Your task to perform on an android device: Set the phone to "Do not disturb". Image 0: 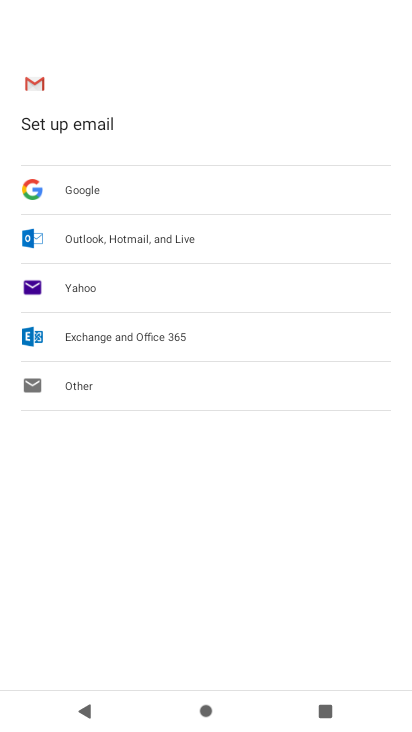
Step 0: press home button
Your task to perform on an android device: Set the phone to "Do not disturb". Image 1: 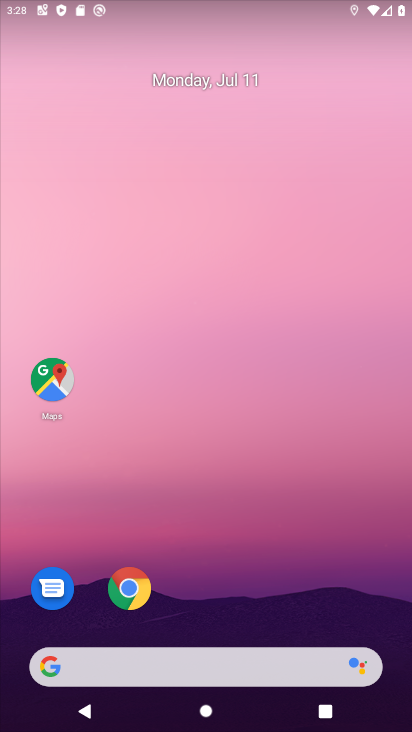
Step 1: drag from (169, 639) to (243, 172)
Your task to perform on an android device: Set the phone to "Do not disturb". Image 2: 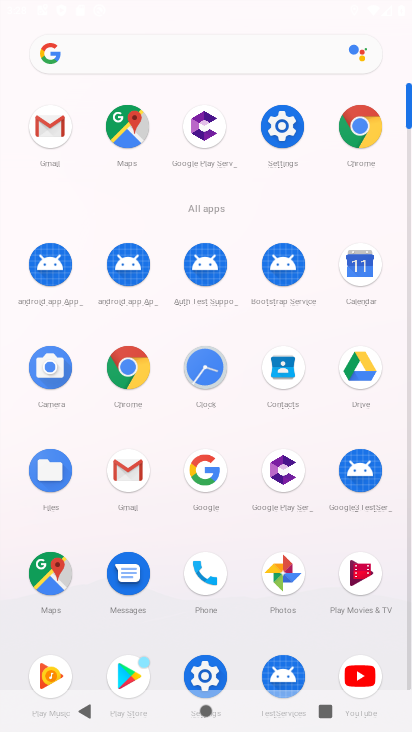
Step 2: click (272, 139)
Your task to perform on an android device: Set the phone to "Do not disturb". Image 3: 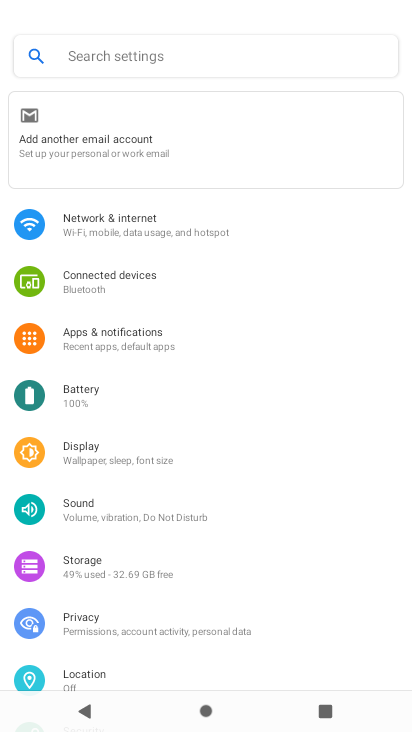
Step 3: click (187, 520)
Your task to perform on an android device: Set the phone to "Do not disturb". Image 4: 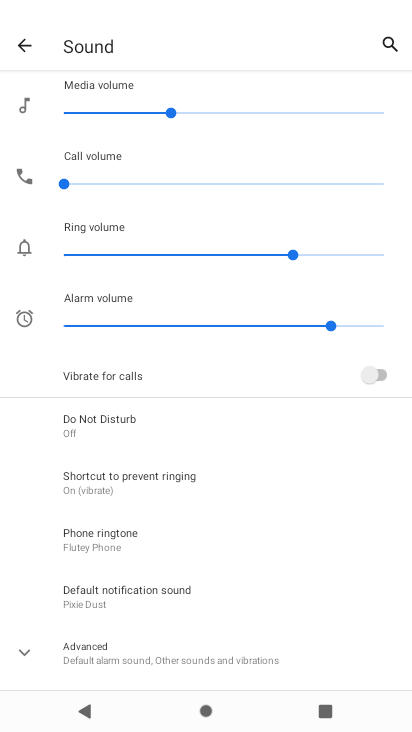
Step 4: click (101, 426)
Your task to perform on an android device: Set the phone to "Do not disturb". Image 5: 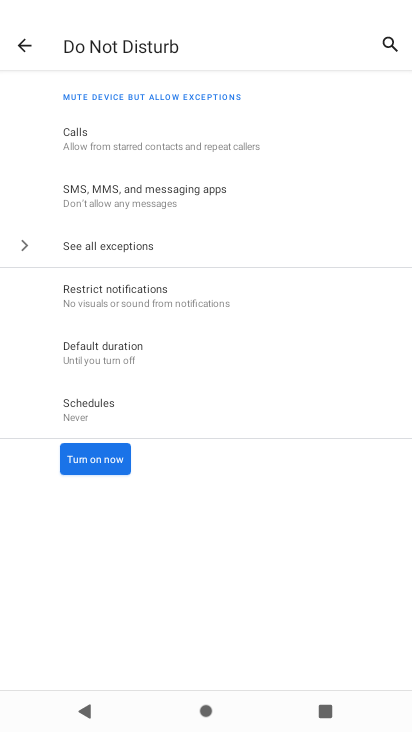
Step 5: click (104, 457)
Your task to perform on an android device: Set the phone to "Do not disturb". Image 6: 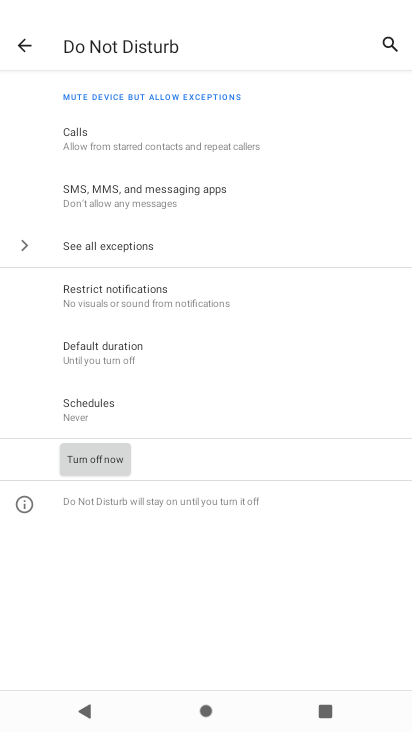
Step 6: task complete